Your task to perform on an android device: Open Google Maps Image 0: 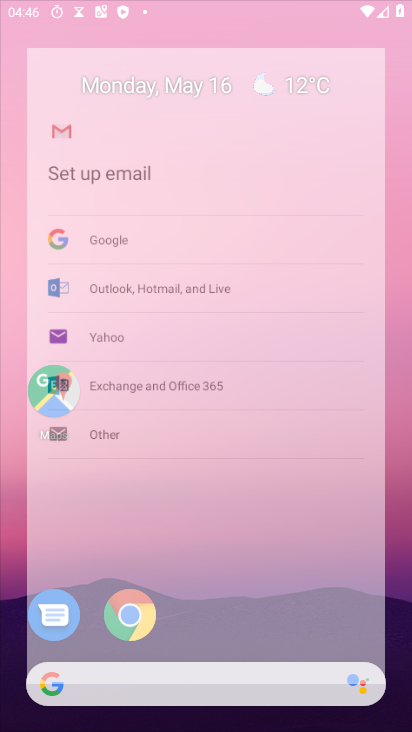
Step 0: drag from (171, 443) to (102, 141)
Your task to perform on an android device: Open Google Maps Image 1: 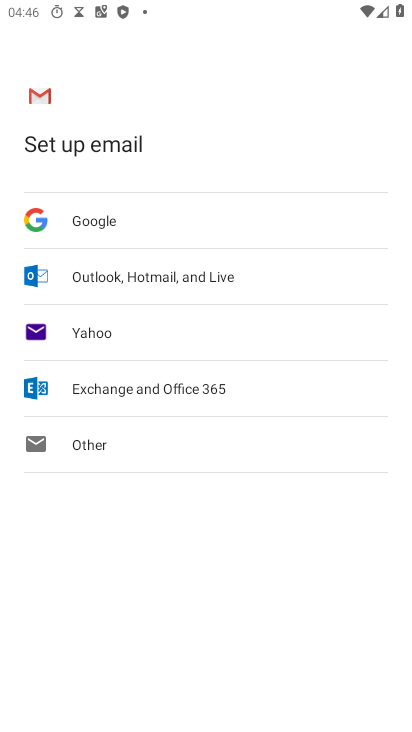
Step 1: press back button
Your task to perform on an android device: Open Google Maps Image 2: 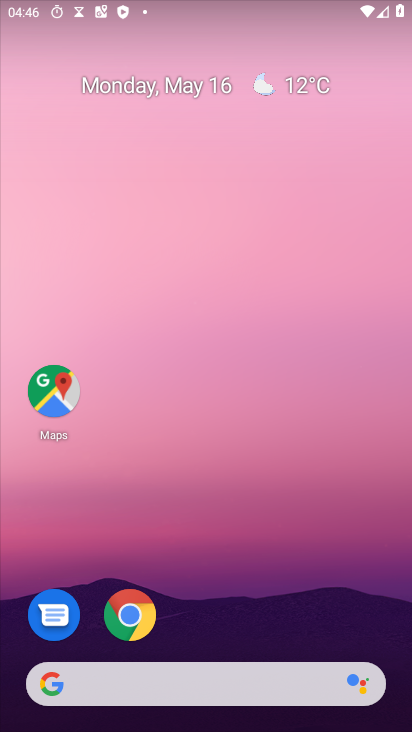
Step 2: drag from (251, 665) to (139, 8)
Your task to perform on an android device: Open Google Maps Image 3: 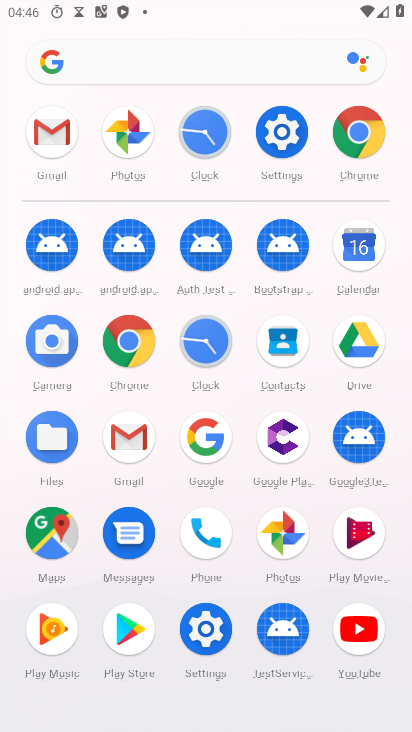
Step 3: click (52, 528)
Your task to perform on an android device: Open Google Maps Image 4: 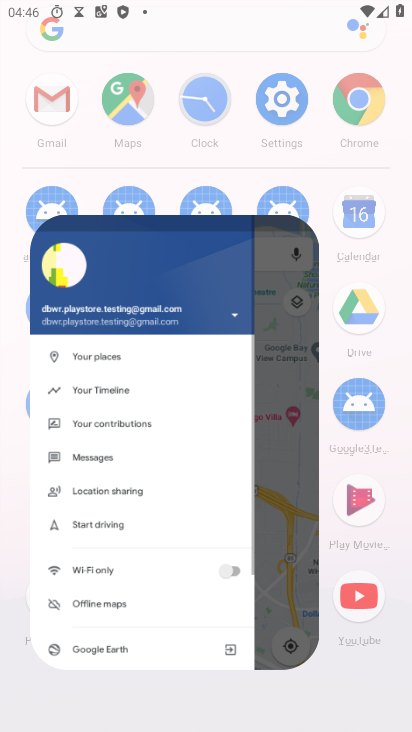
Step 4: click (53, 526)
Your task to perform on an android device: Open Google Maps Image 5: 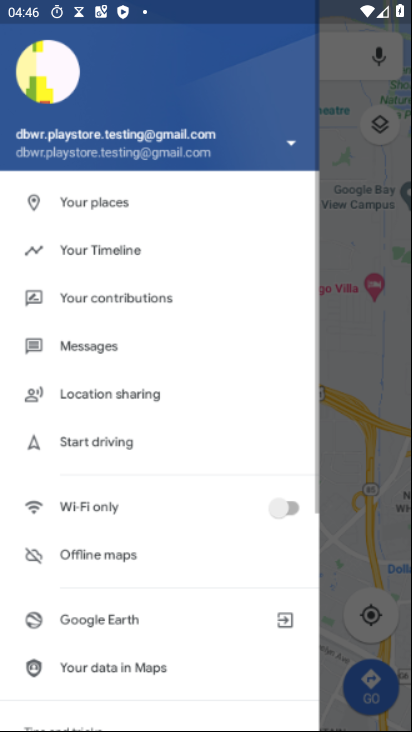
Step 5: click (57, 528)
Your task to perform on an android device: Open Google Maps Image 6: 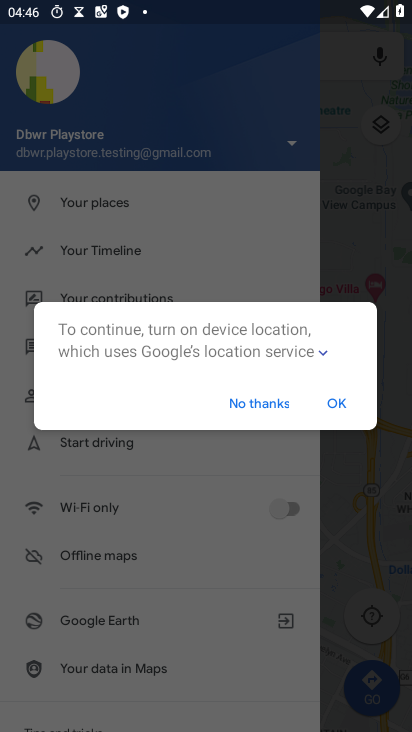
Step 6: click (256, 404)
Your task to perform on an android device: Open Google Maps Image 7: 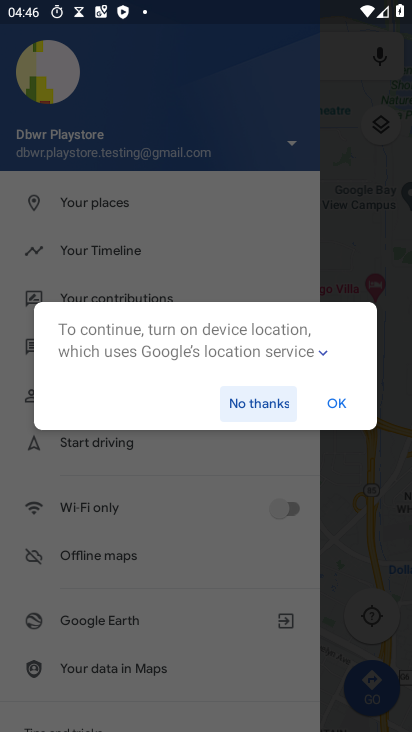
Step 7: click (268, 413)
Your task to perform on an android device: Open Google Maps Image 8: 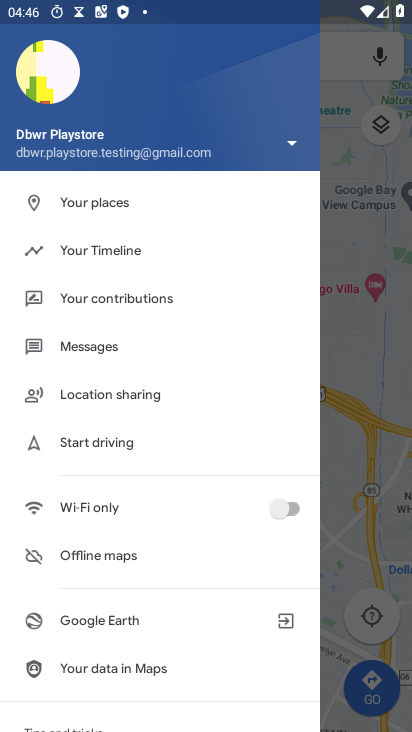
Step 8: click (263, 409)
Your task to perform on an android device: Open Google Maps Image 9: 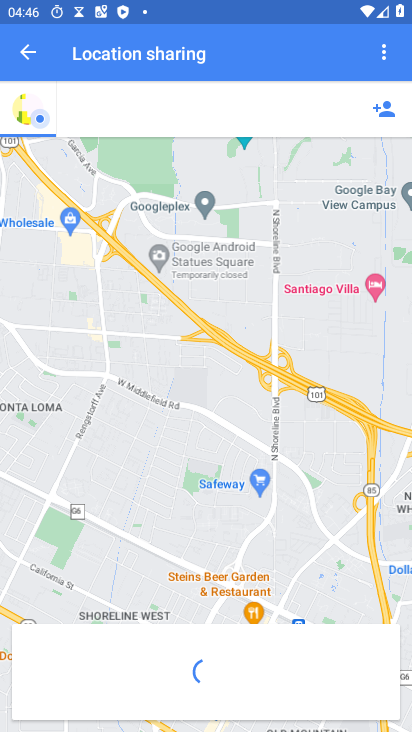
Step 9: click (18, 53)
Your task to perform on an android device: Open Google Maps Image 10: 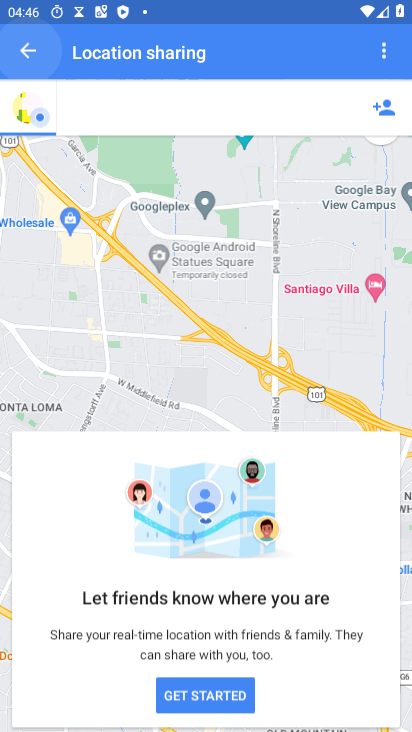
Step 10: click (19, 52)
Your task to perform on an android device: Open Google Maps Image 11: 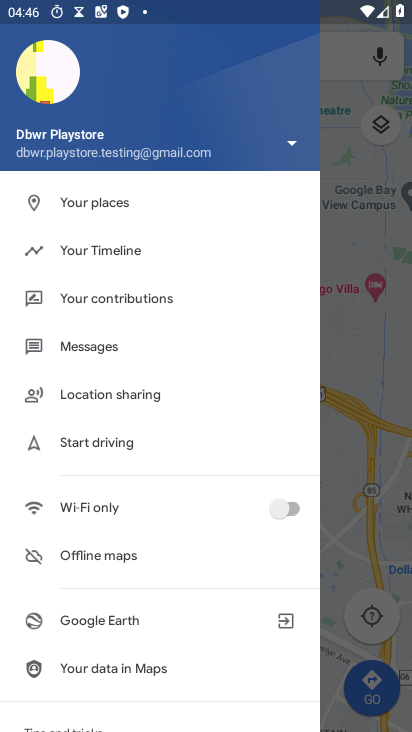
Step 11: click (90, 244)
Your task to perform on an android device: Open Google Maps Image 12: 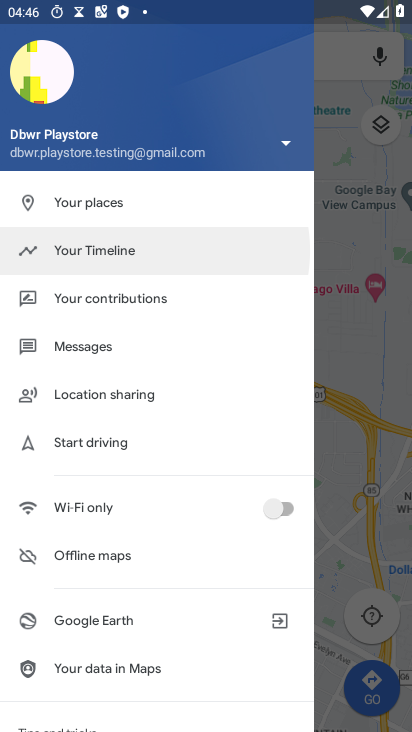
Step 12: click (90, 244)
Your task to perform on an android device: Open Google Maps Image 13: 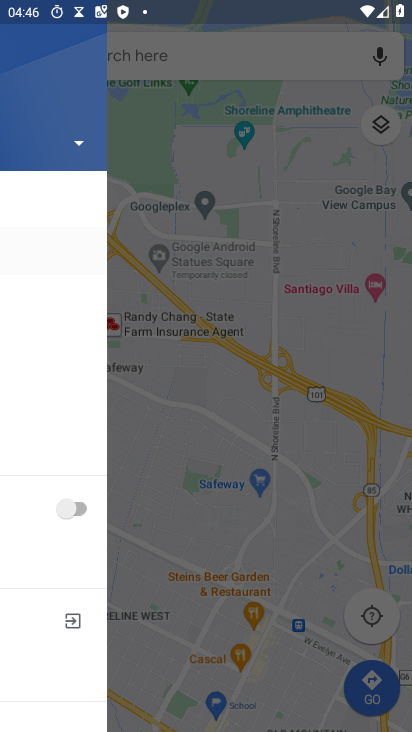
Step 13: click (97, 248)
Your task to perform on an android device: Open Google Maps Image 14: 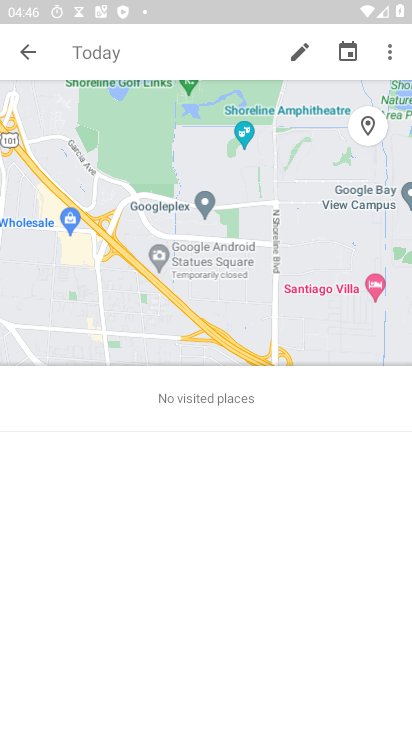
Step 14: click (27, 46)
Your task to perform on an android device: Open Google Maps Image 15: 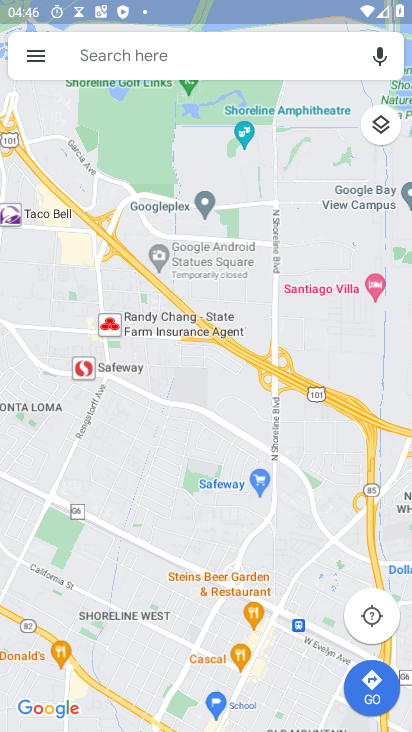
Step 15: click (92, 46)
Your task to perform on an android device: Open Google Maps Image 16: 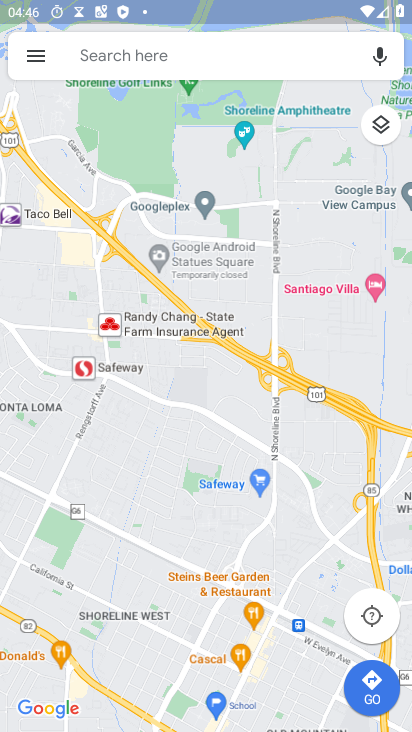
Step 16: click (92, 47)
Your task to perform on an android device: Open Google Maps Image 17: 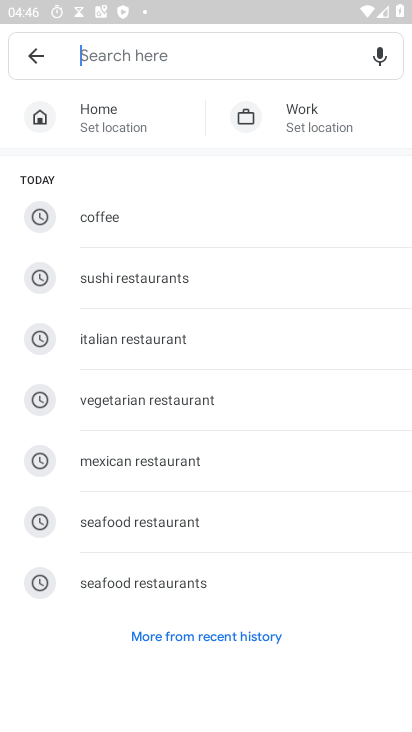
Step 17: click (92, 59)
Your task to perform on an android device: Open Google Maps Image 18: 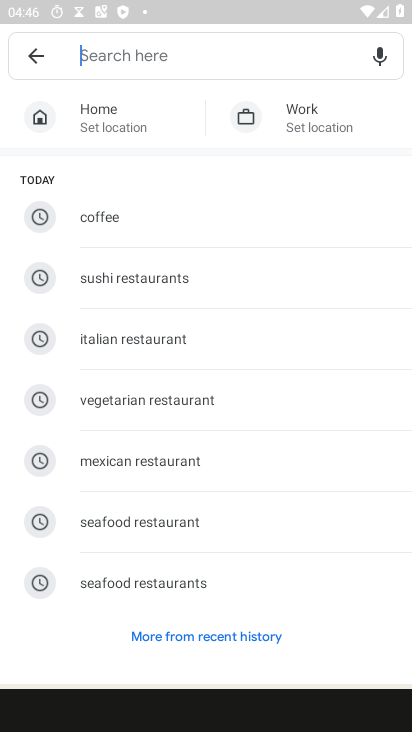
Step 18: click (92, 59)
Your task to perform on an android device: Open Google Maps Image 19: 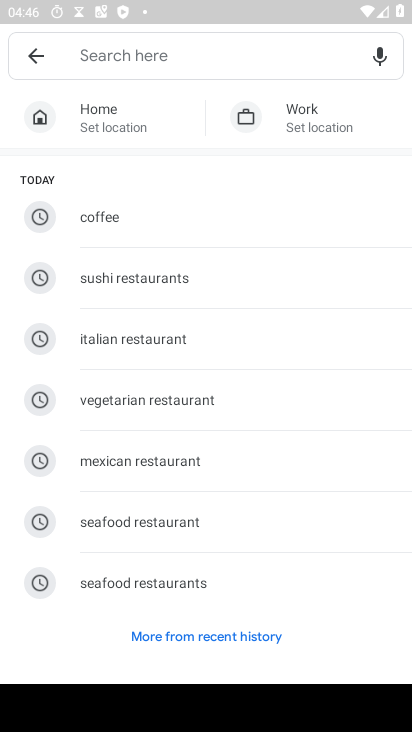
Step 19: drag from (179, 416) to (125, 29)
Your task to perform on an android device: Open Google Maps Image 20: 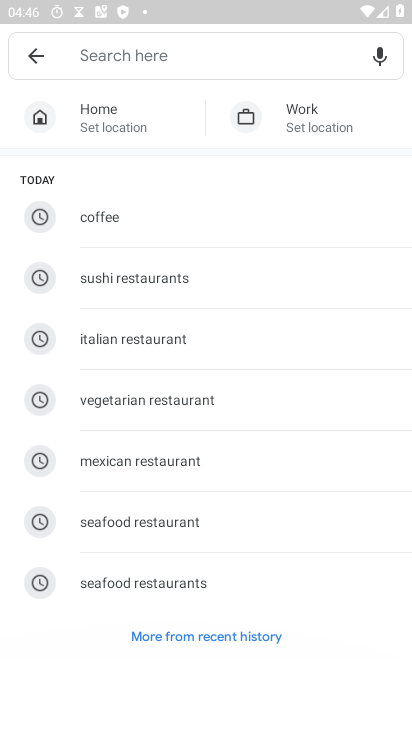
Step 20: drag from (202, 284) to (285, 30)
Your task to perform on an android device: Open Google Maps Image 21: 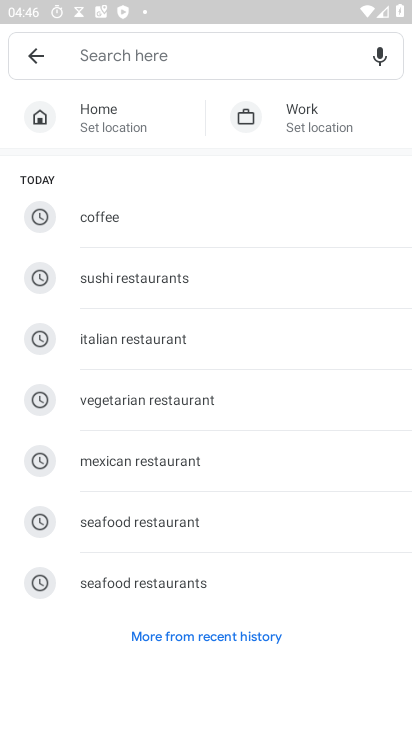
Step 21: drag from (185, 450) to (174, 3)
Your task to perform on an android device: Open Google Maps Image 22: 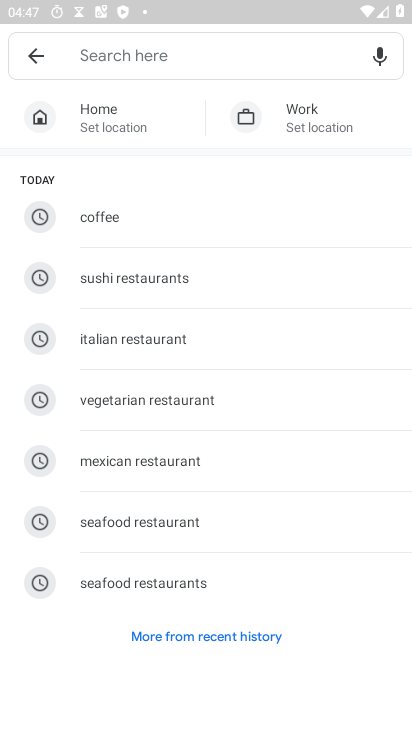
Step 22: click (39, 54)
Your task to perform on an android device: Open Google Maps Image 23: 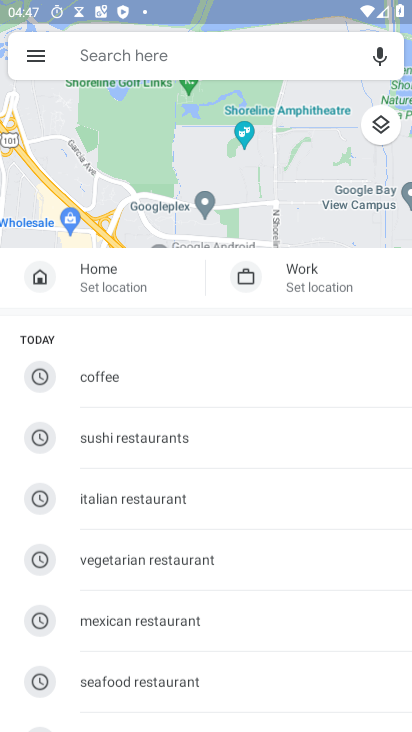
Step 23: click (38, 53)
Your task to perform on an android device: Open Google Maps Image 24: 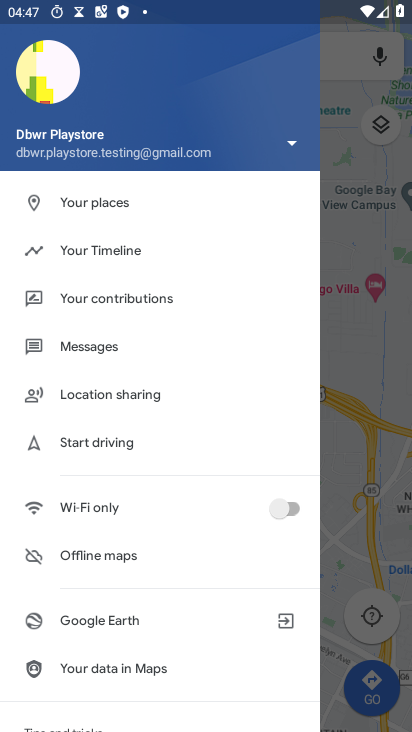
Step 24: task complete